Your task to perform on an android device: Open Google Maps Image 0: 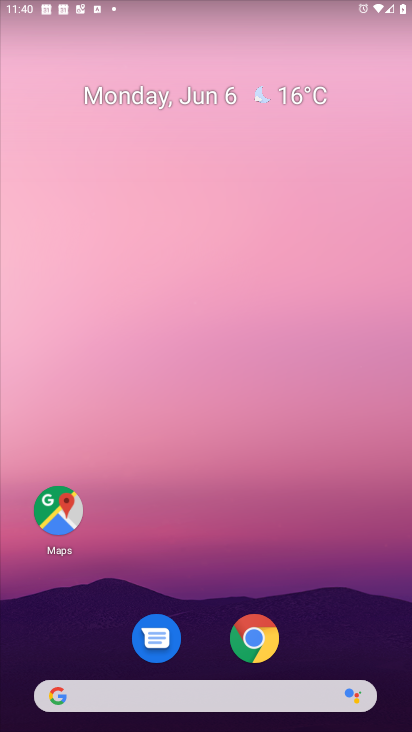
Step 0: drag from (205, 716) to (275, 214)
Your task to perform on an android device: Open Google Maps Image 1: 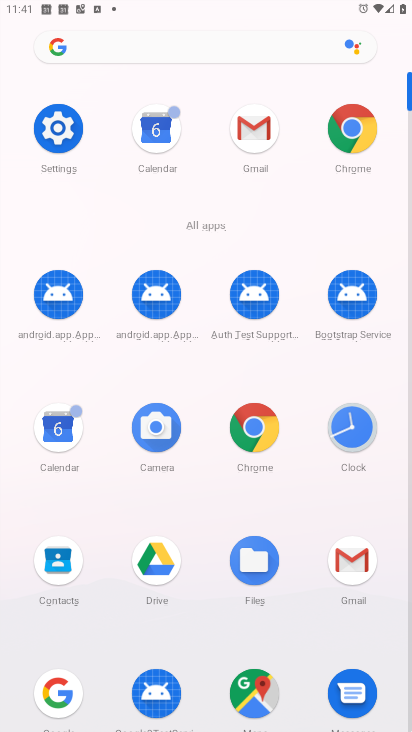
Step 1: click (260, 684)
Your task to perform on an android device: Open Google Maps Image 2: 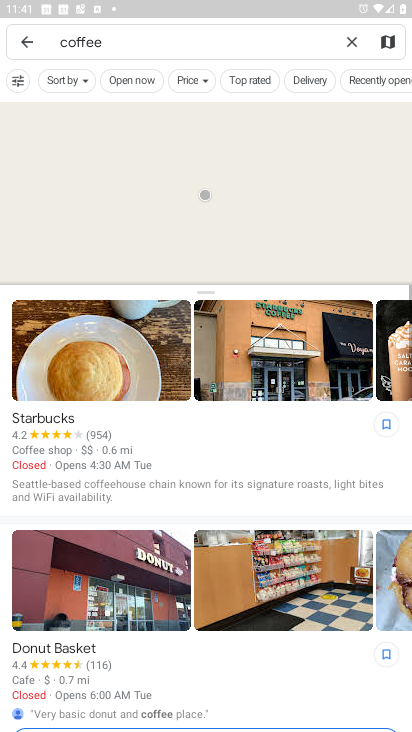
Step 2: click (21, 47)
Your task to perform on an android device: Open Google Maps Image 3: 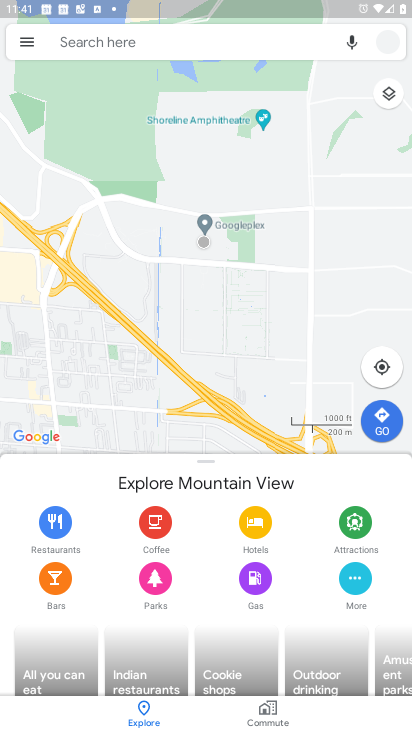
Step 3: click (16, 45)
Your task to perform on an android device: Open Google Maps Image 4: 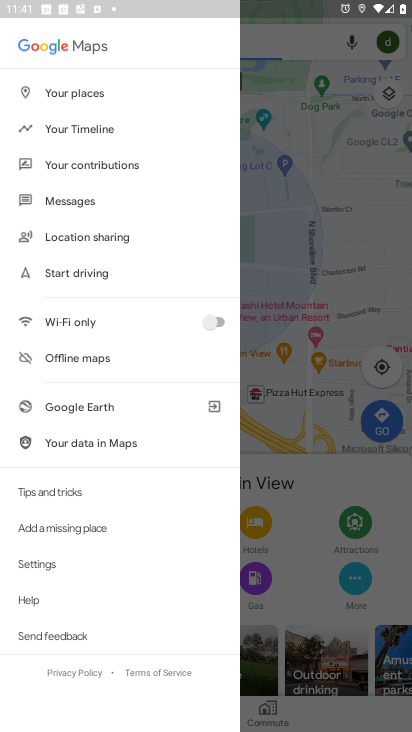
Step 4: click (320, 339)
Your task to perform on an android device: Open Google Maps Image 5: 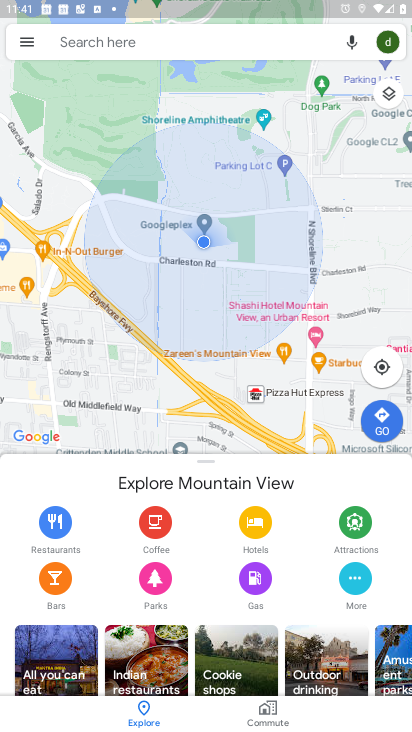
Step 5: task complete